Your task to perform on an android device: change alarm snooze length Image 0: 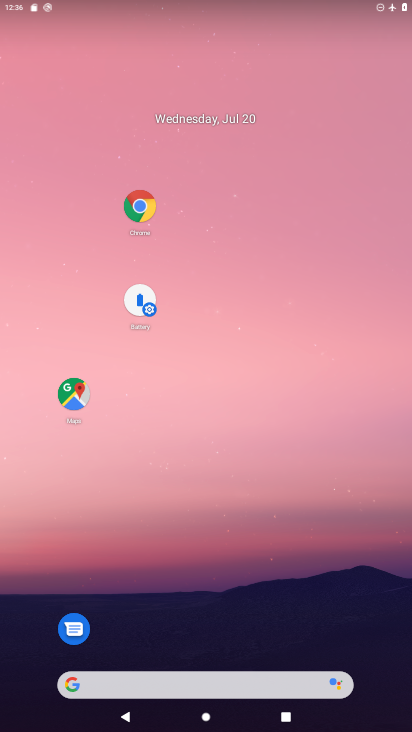
Step 0: drag from (230, 650) to (231, 244)
Your task to perform on an android device: change alarm snooze length Image 1: 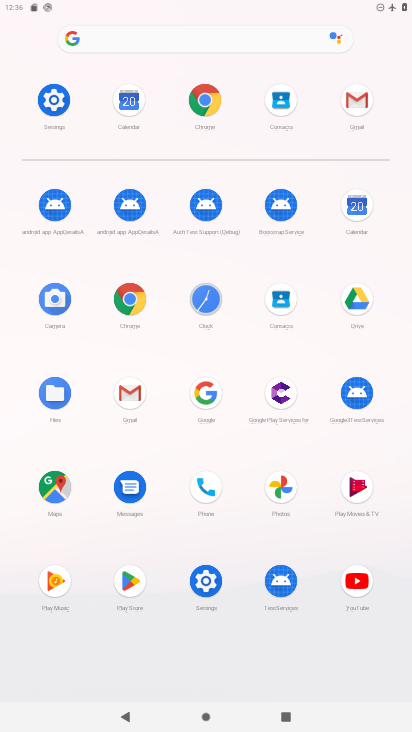
Step 1: click (203, 295)
Your task to perform on an android device: change alarm snooze length Image 2: 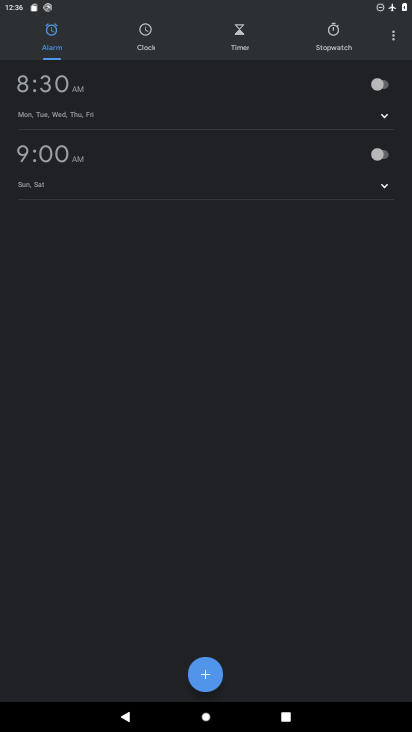
Step 2: click (399, 35)
Your task to perform on an android device: change alarm snooze length Image 3: 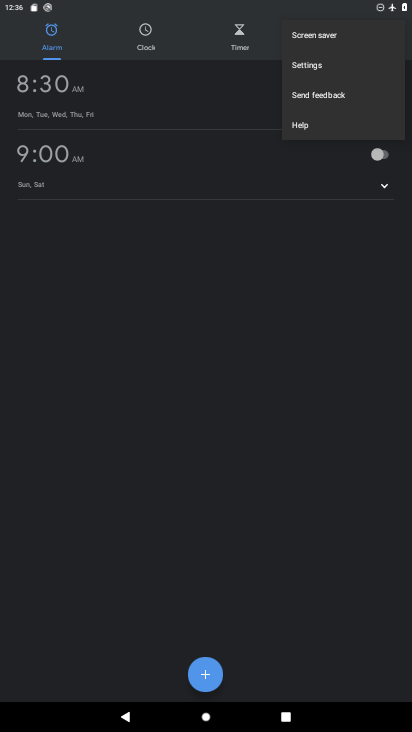
Step 3: click (324, 70)
Your task to perform on an android device: change alarm snooze length Image 4: 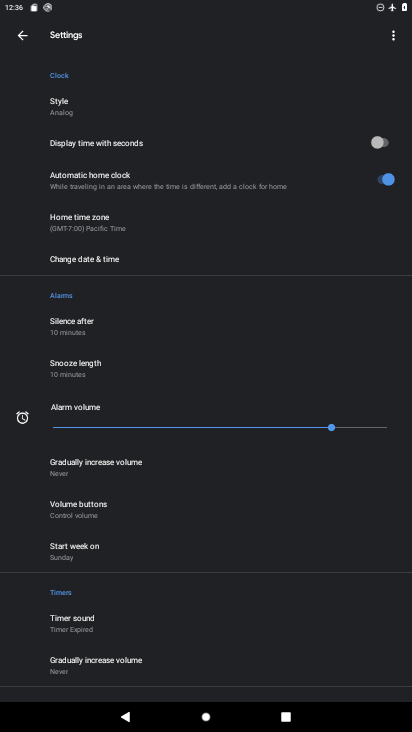
Step 4: click (97, 369)
Your task to perform on an android device: change alarm snooze length Image 5: 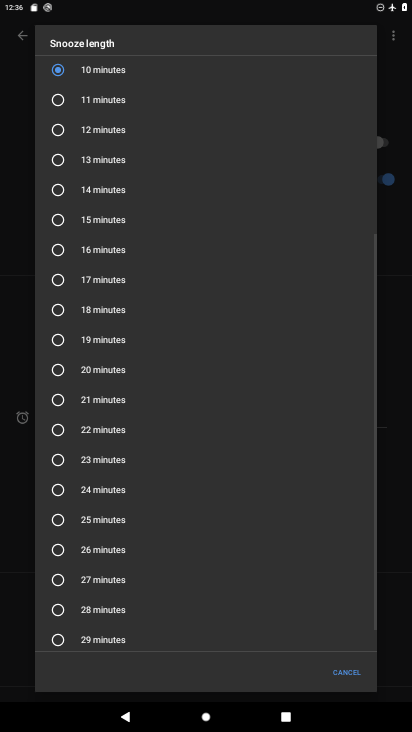
Step 5: click (80, 162)
Your task to perform on an android device: change alarm snooze length Image 6: 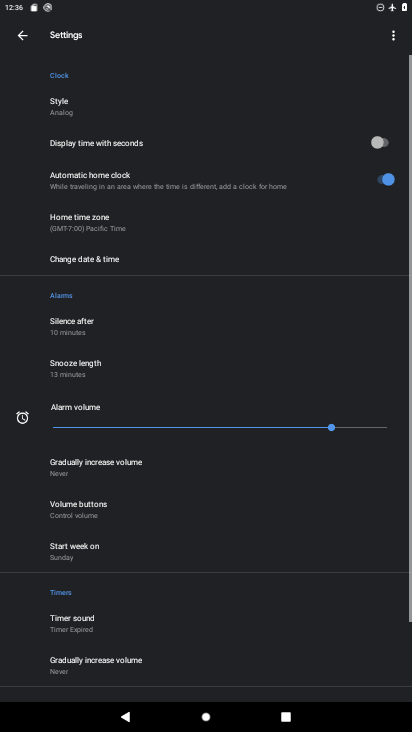
Step 6: task complete